Your task to perform on an android device: check battery use Image 0: 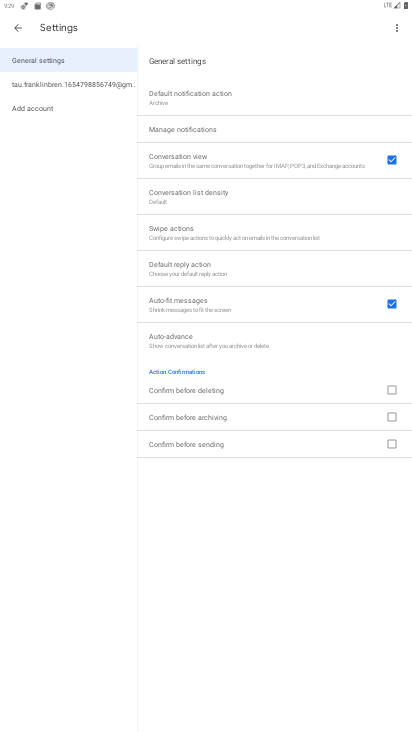
Step 0: press home button
Your task to perform on an android device: check battery use Image 1: 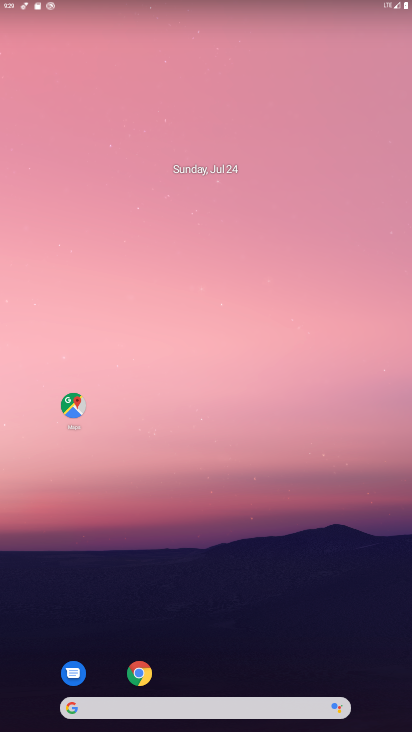
Step 1: drag from (188, 664) to (201, 65)
Your task to perform on an android device: check battery use Image 2: 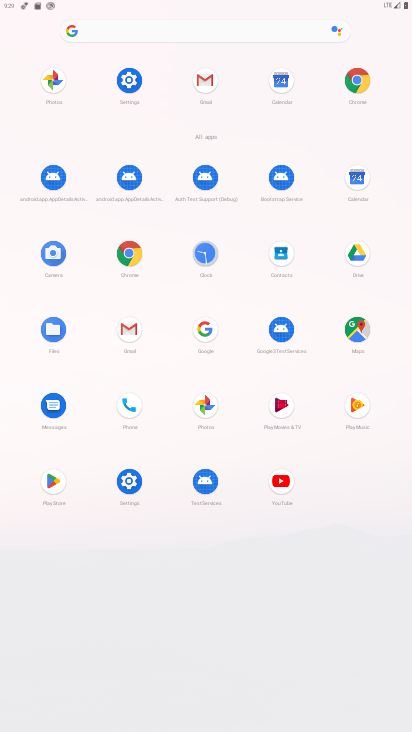
Step 2: click (136, 505)
Your task to perform on an android device: check battery use Image 3: 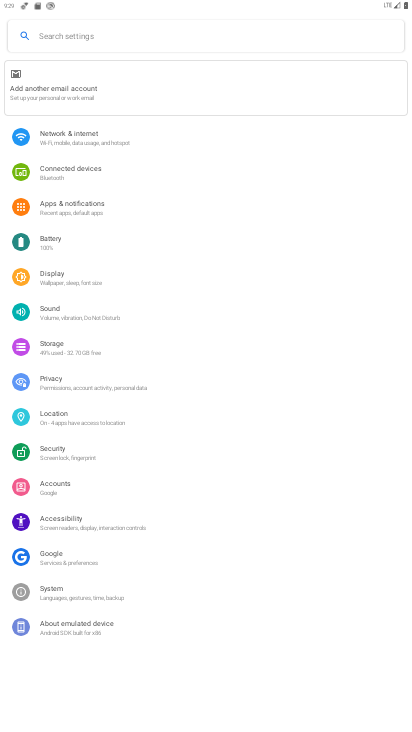
Step 3: click (62, 240)
Your task to perform on an android device: check battery use Image 4: 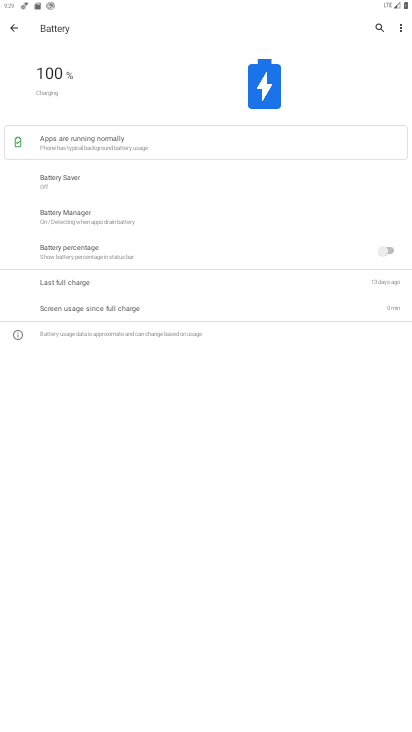
Step 4: click (401, 24)
Your task to perform on an android device: check battery use Image 5: 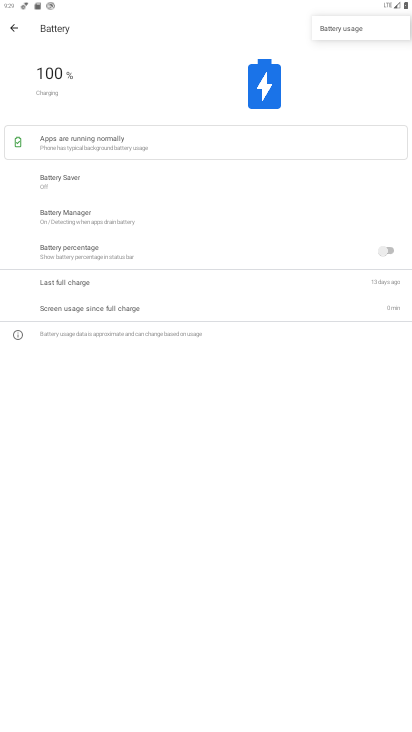
Step 5: click (341, 26)
Your task to perform on an android device: check battery use Image 6: 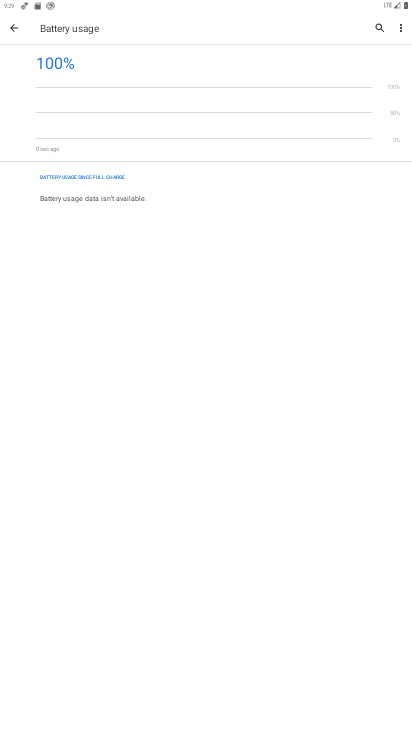
Step 6: task complete